Your task to perform on an android device: Open settings on Google Maps Image 0: 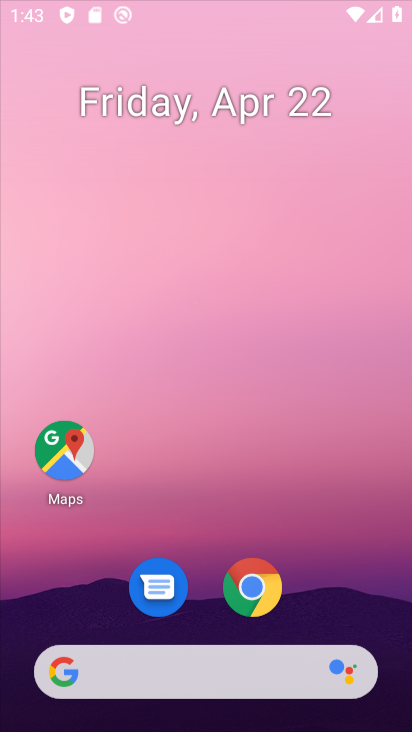
Step 0: click (276, 244)
Your task to perform on an android device: Open settings on Google Maps Image 1: 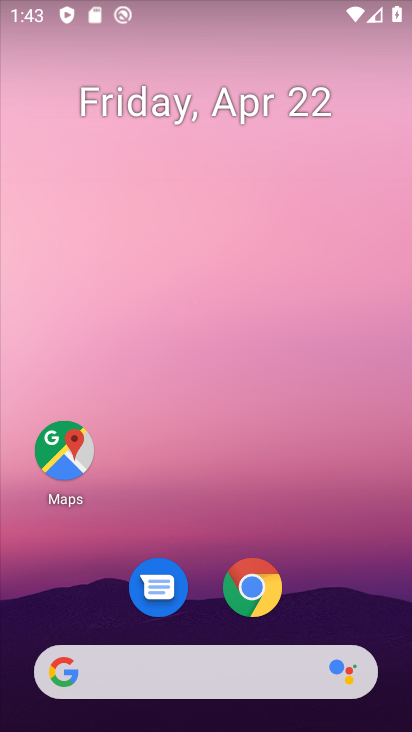
Step 1: drag from (214, 615) to (208, 247)
Your task to perform on an android device: Open settings on Google Maps Image 2: 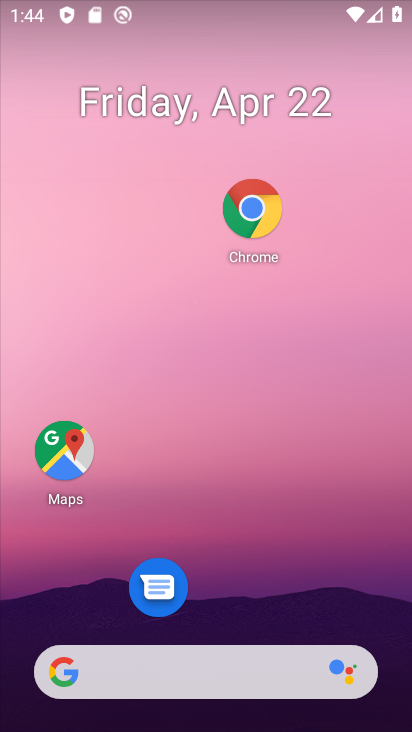
Step 2: drag from (213, 628) to (118, 0)
Your task to perform on an android device: Open settings on Google Maps Image 3: 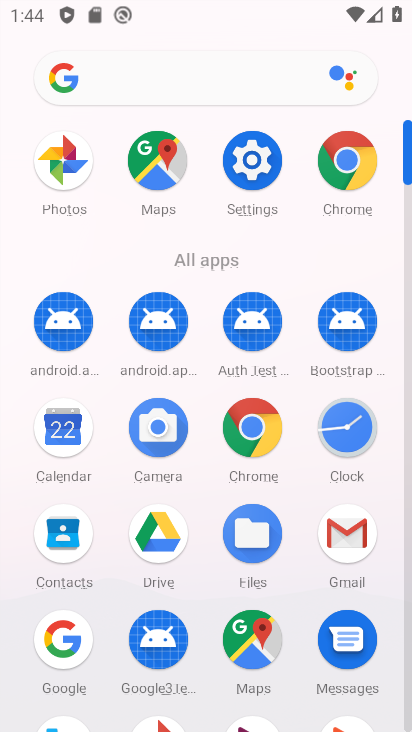
Step 3: click (244, 638)
Your task to perform on an android device: Open settings on Google Maps Image 4: 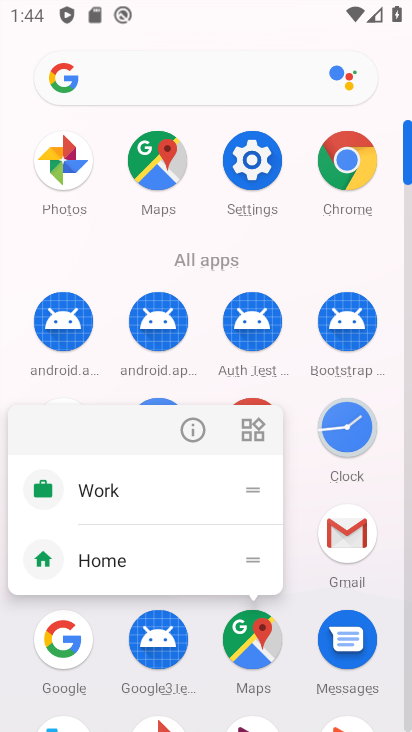
Step 4: click (173, 423)
Your task to perform on an android device: Open settings on Google Maps Image 5: 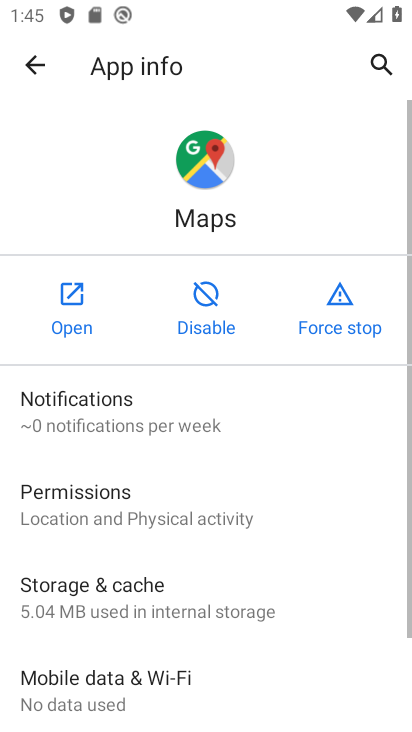
Step 5: click (86, 305)
Your task to perform on an android device: Open settings on Google Maps Image 6: 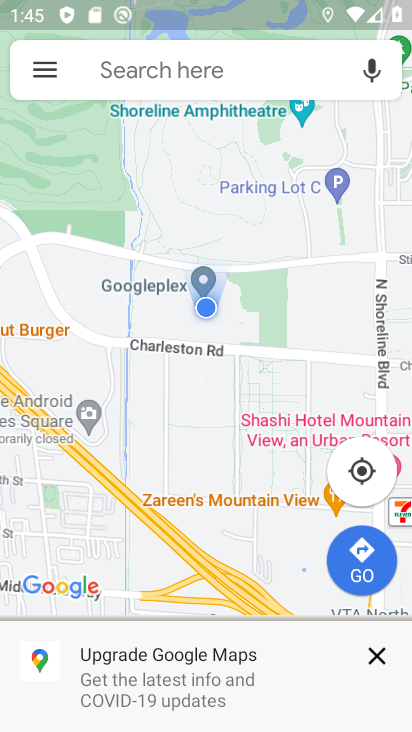
Step 6: click (33, 68)
Your task to perform on an android device: Open settings on Google Maps Image 7: 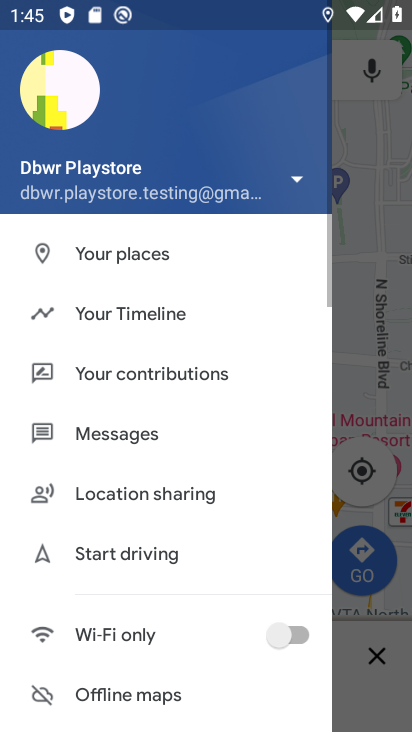
Step 7: drag from (148, 602) to (144, 62)
Your task to perform on an android device: Open settings on Google Maps Image 8: 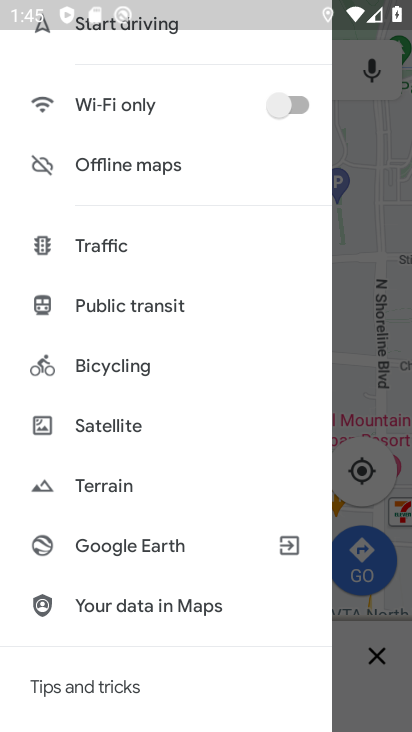
Step 8: drag from (134, 542) to (216, 78)
Your task to perform on an android device: Open settings on Google Maps Image 9: 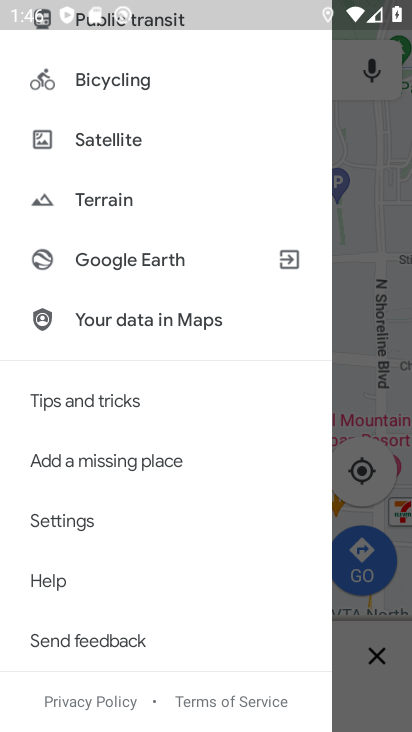
Step 9: drag from (62, 533) to (118, 266)
Your task to perform on an android device: Open settings on Google Maps Image 10: 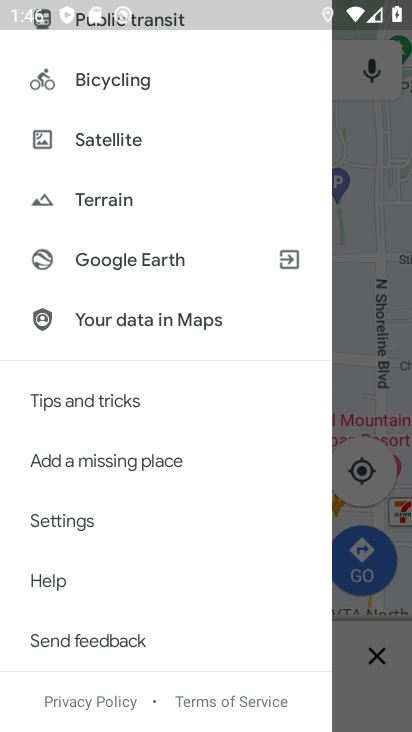
Step 10: click (104, 523)
Your task to perform on an android device: Open settings on Google Maps Image 11: 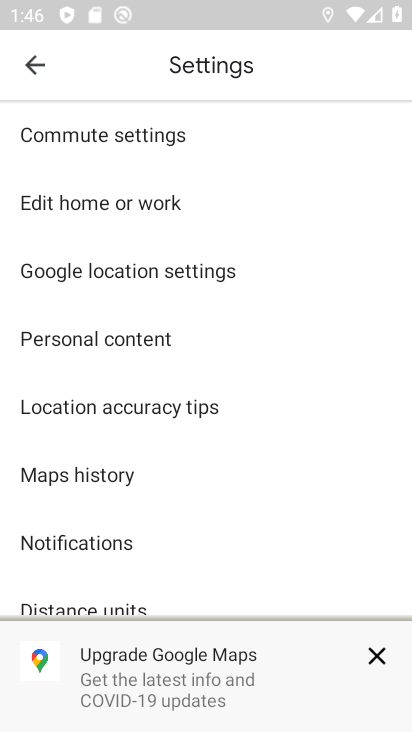
Step 11: task complete